Your task to perform on an android device: empty trash in the gmail app Image 0: 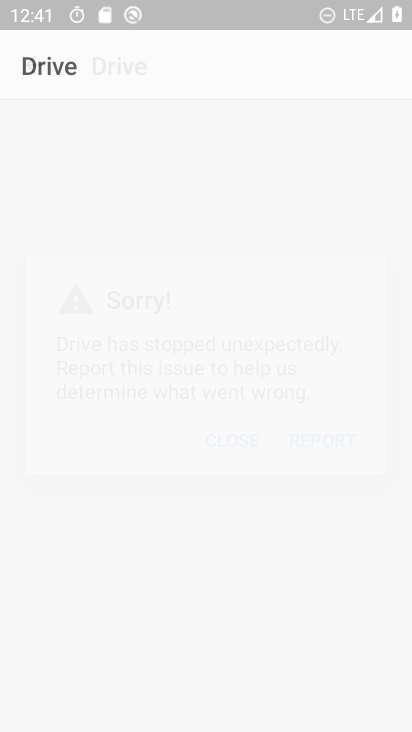
Step 0: drag from (212, 636) to (262, 34)
Your task to perform on an android device: empty trash in the gmail app Image 1: 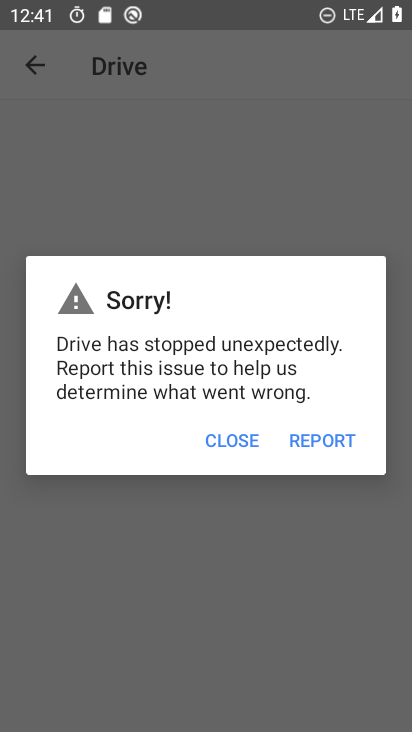
Step 1: press home button
Your task to perform on an android device: empty trash in the gmail app Image 2: 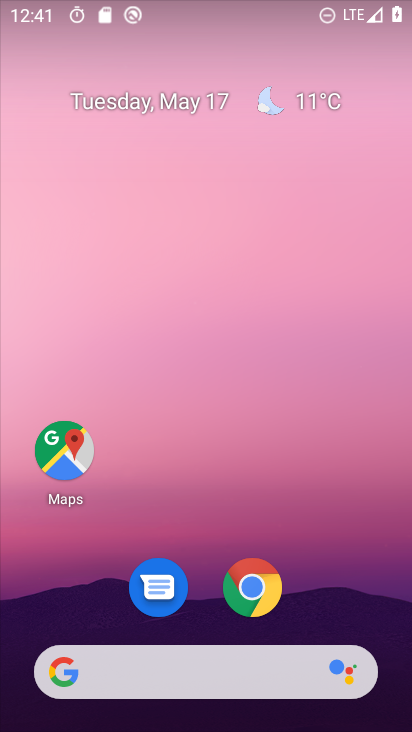
Step 2: drag from (212, 581) to (225, 224)
Your task to perform on an android device: empty trash in the gmail app Image 3: 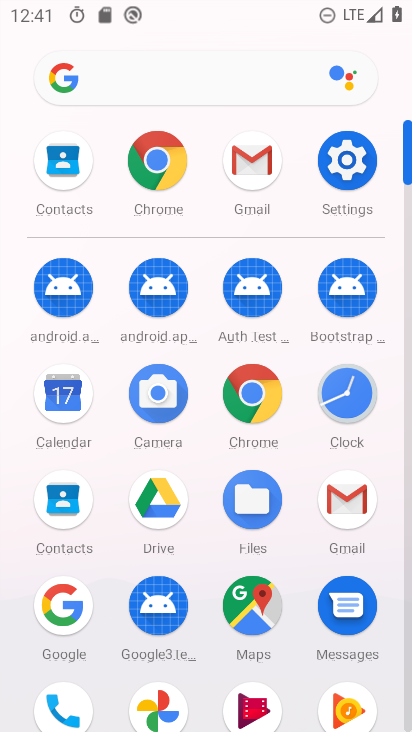
Step 3: drag from (210, 635) to (221, 271)
Your task to perform on an android device: empty trash in the gmail app Image 4: 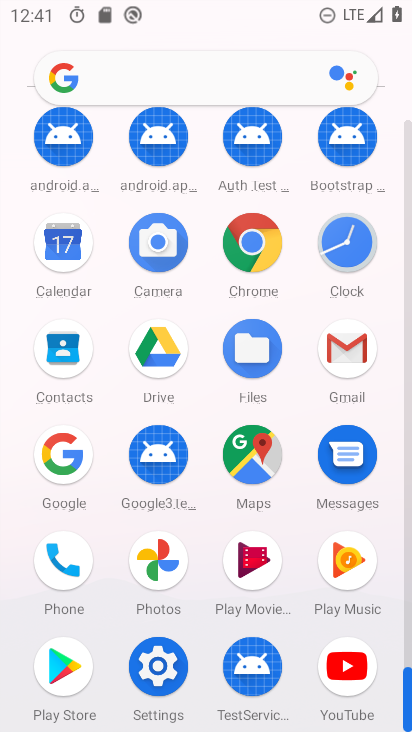
Step 4: drag from (212, 607) to (219, 345)
Your task to perform on an android device: empty trash in the gmail app Image 5: 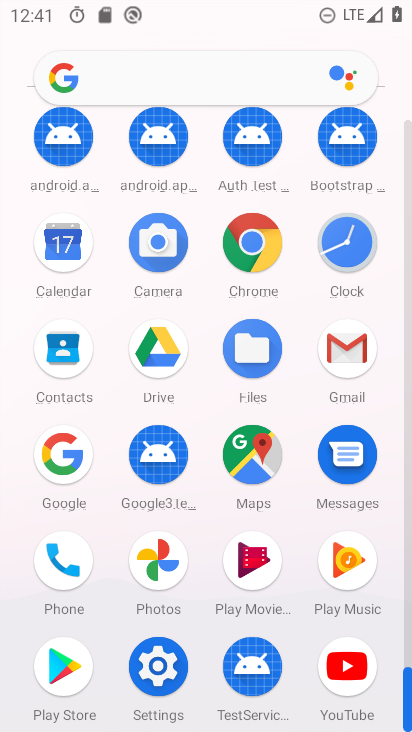
Step 5: click (351, 342)
Your task to perform on an android device: empty trash in the gmail app Image 6: 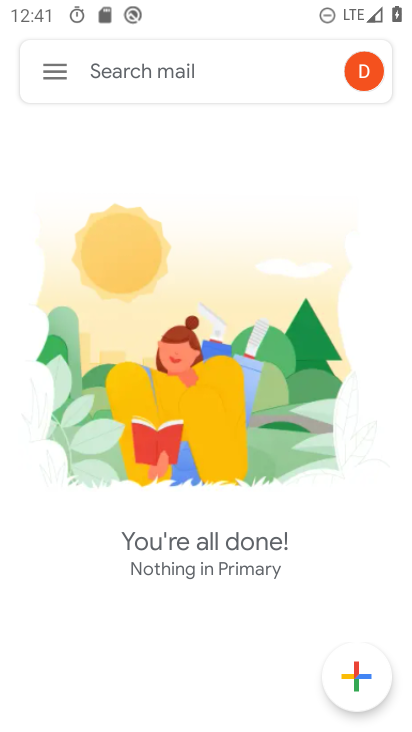
Step 6: click (50, 75)
Your task to perform on an android device: empty trash in the gmail app Image 7: 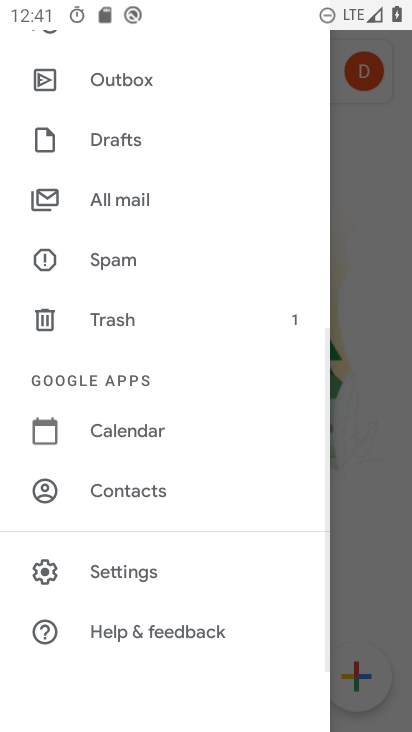
Step 7: drag from (196, 591) to (193, 146)
Your task to perform on an android device: empty trash in the gmail app Image 8: 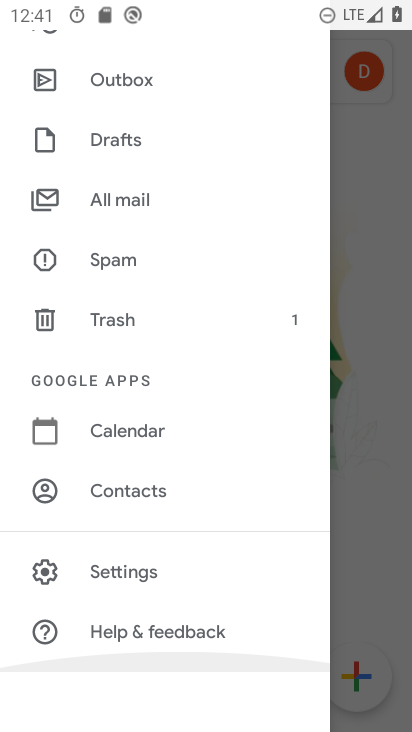
Step 8: drag from (193, 128) to (251, 704)
Your task to perform on an android device: empty trash in the gmail app Image 9: 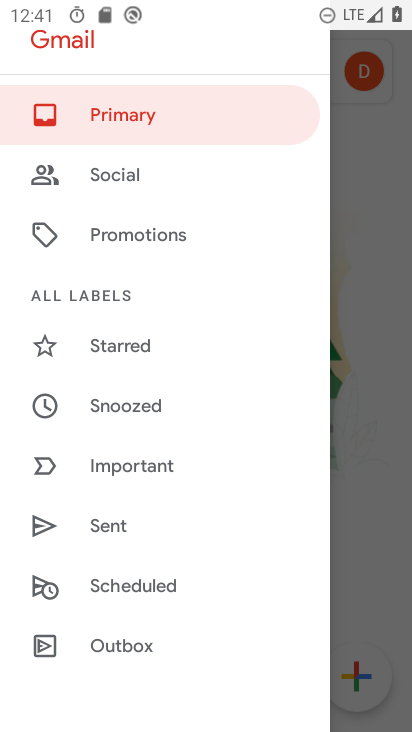
Step 9: drag from (195, 220) to (198, 711)
Your task to perform on an android device: empty trash in the gmail app Image 10: 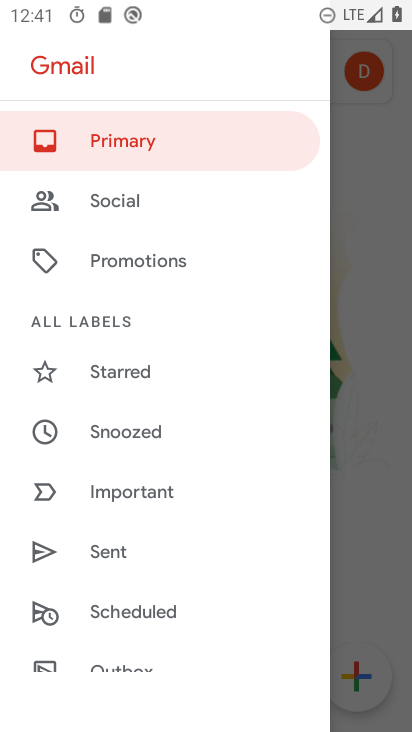
Step 10: drag from (204, 164) to (215, 538)
Your task to perform on an android device: empty trash in the gmail app Image 11: 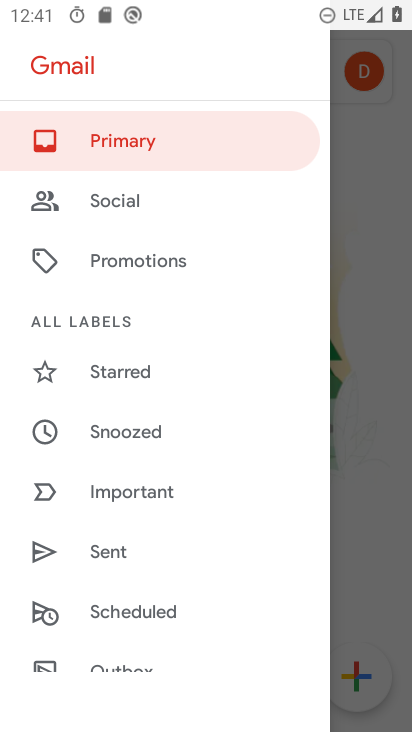
Step 11: drag from (177, 624) to (195, 71)
Your task to perform on an android device: empty trash in the gmail app Image 12: 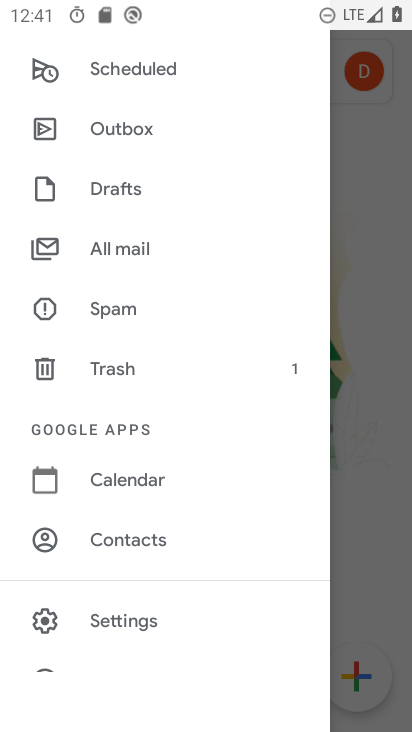
Step 12: drag from (162, 600) to (186, 141)
Your task to perform on an android device: empty trash in the gmail app Image 13: 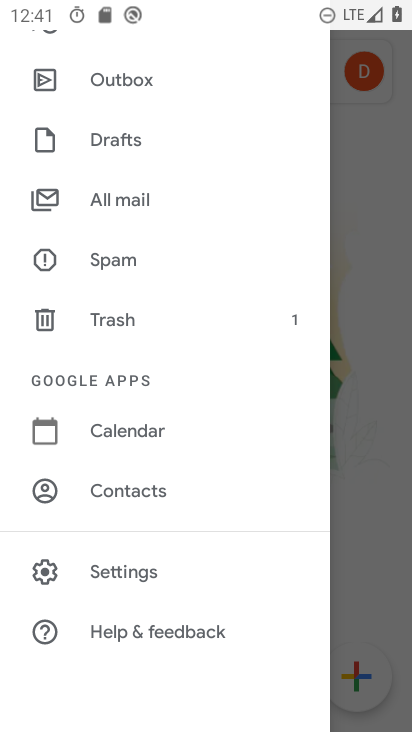
Step 13: drag from (143, 620) to (212, 304)
Your task to perform on an android device: empty trash in the gmail app Image 14: 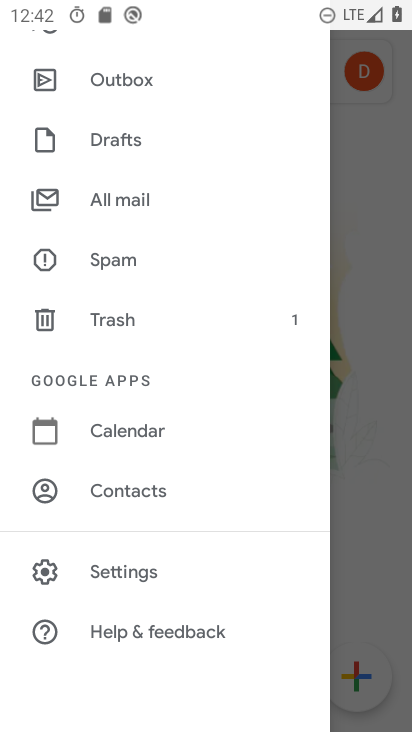
Step 14: click (103, 315)
Your task to perform on an android device: empty trash in the gmail app Image 15: 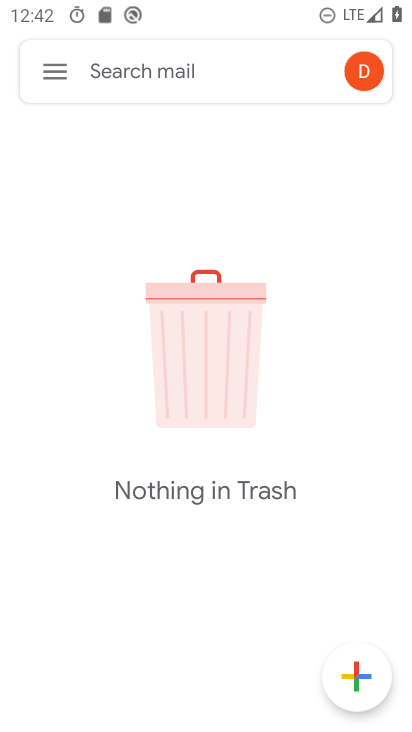
Step 15: task complete